Your task to perform on an android device: Open notification settings Image 0: 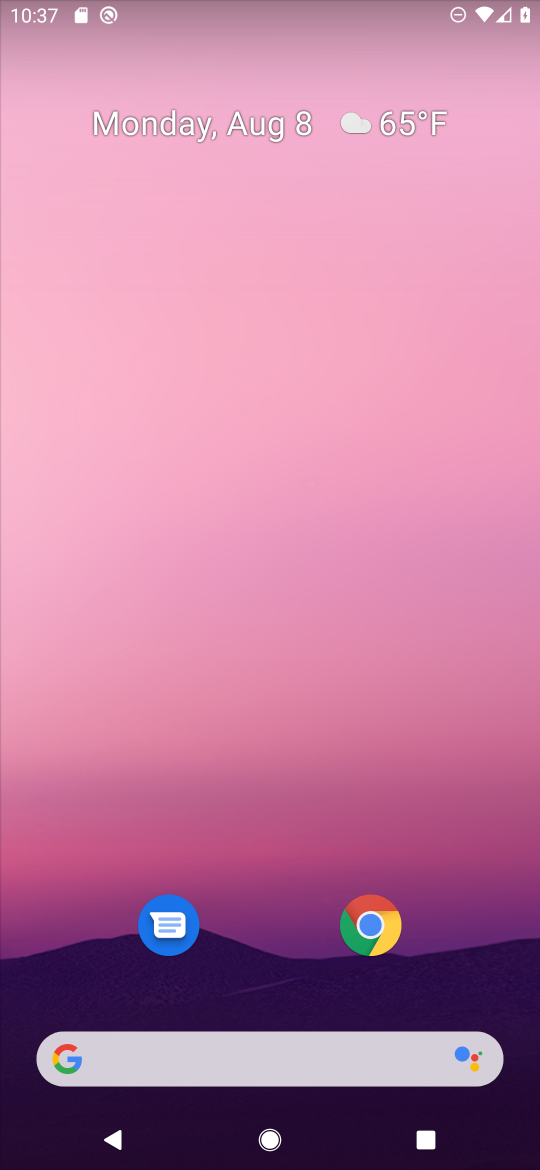
Step 0: drag from (262, 837) to (337, 97)
Your task to perform on an android device: Open notification settings Image 1: 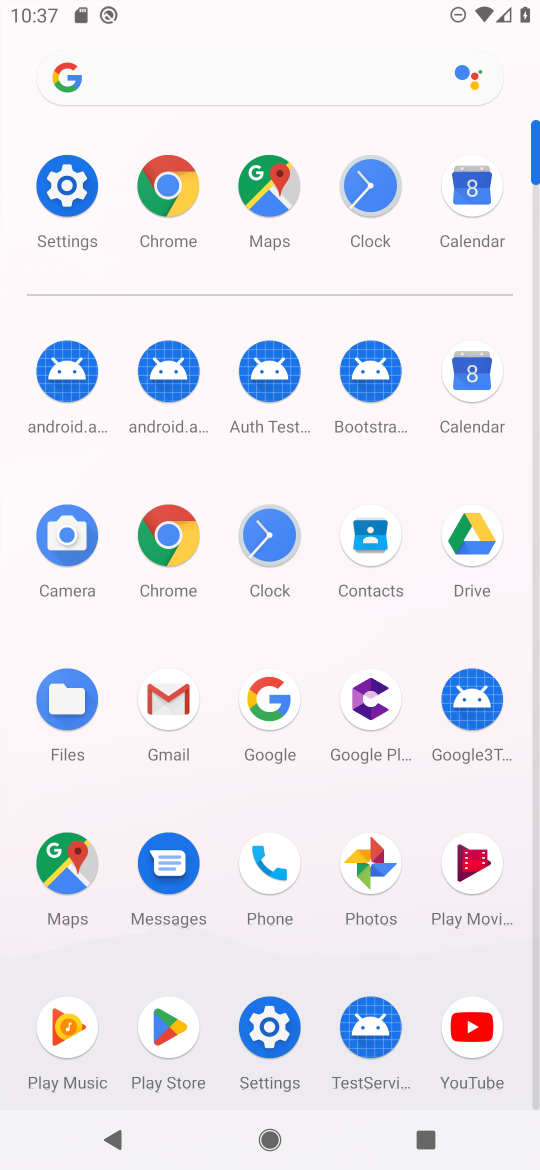
Step 1: click (264, 1014)
Your task to perform on an android device: Open notification settings Image 2: 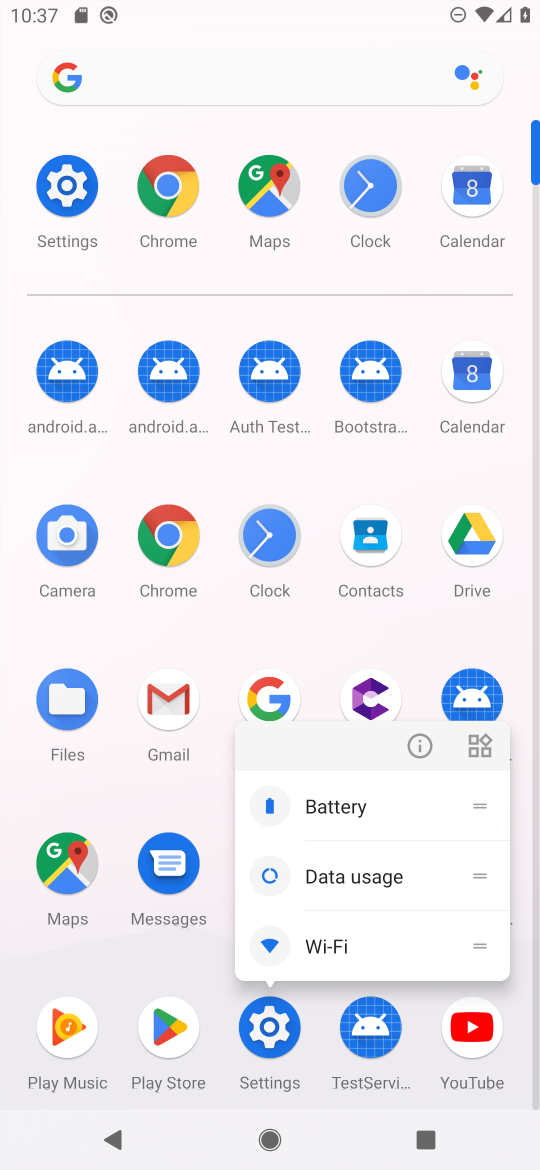
Step 2: click (266, 1035)
Your task to perform on an android device: Open notification settings Image 3: 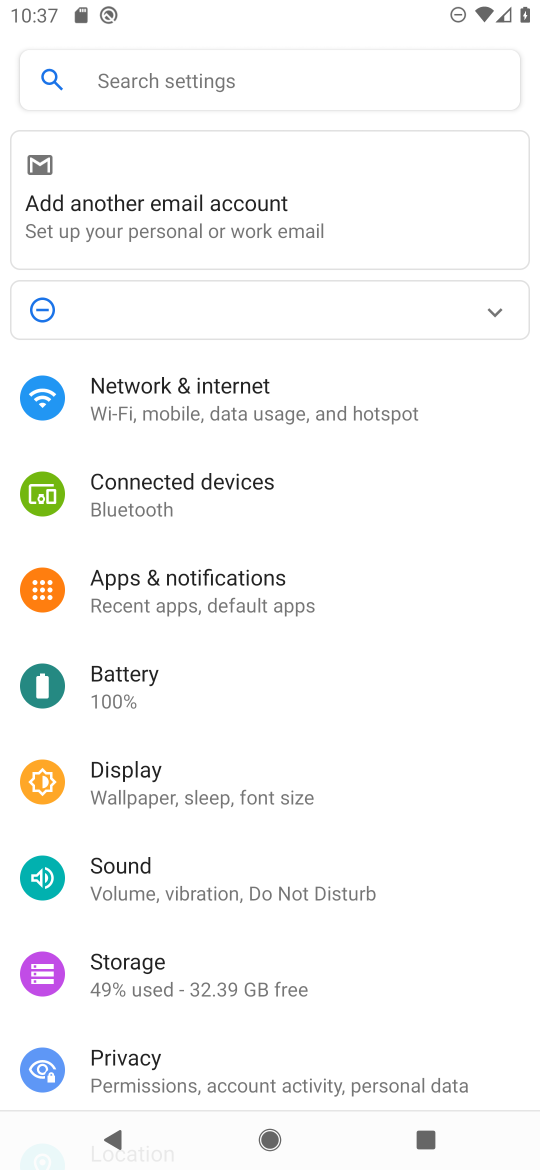
Step 3: click (142, 599)
Your task to perform on an android device: Open notification settings Image 4: 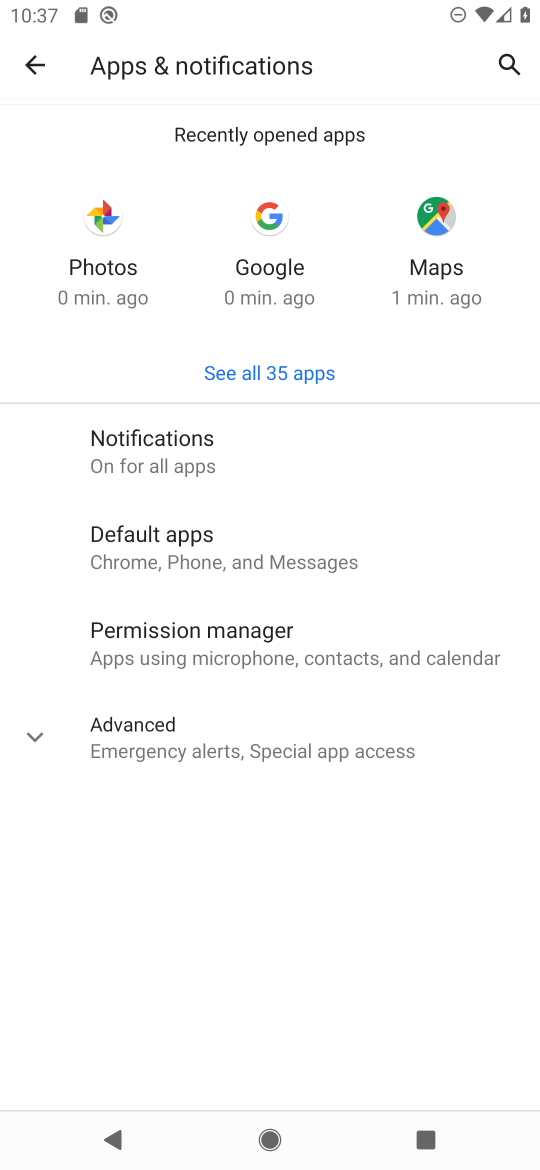
Step 4: click (144, 454)
Your task to perform on an android device: Open notification settings Image 5: 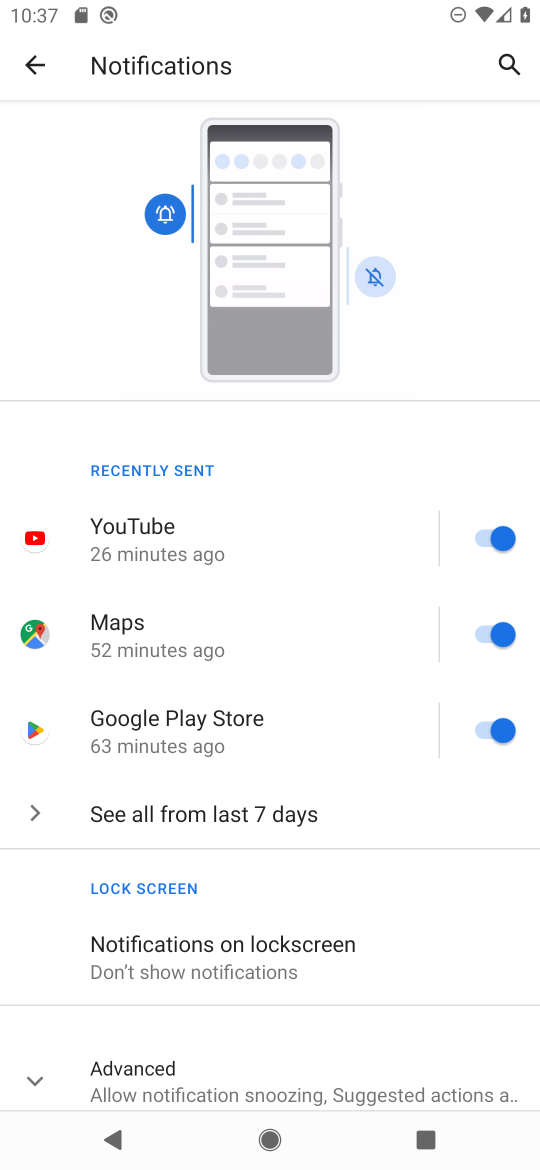
Step 5: task complete